Your task to perform on an android device: see sites visited before in the chrome app Image 0: 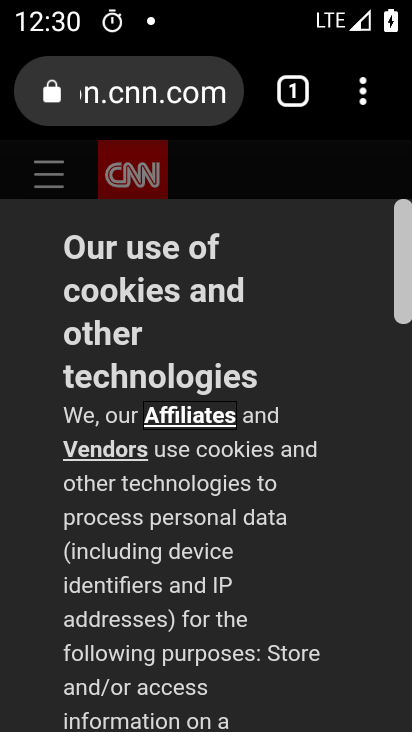
Step 0: click (368, 91)
Your task to perform on an android device: see sites visited before in the chrome app Image 1: 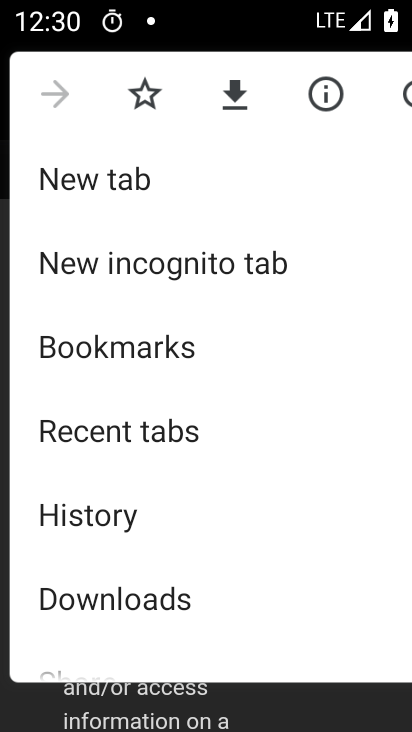
Step 1: click (113, 517)
Your task to perform on an android device: see sites visited before in the chrome app Image 2: 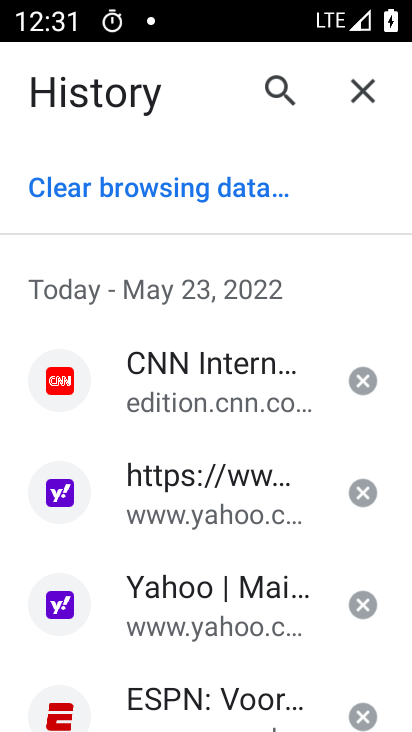
Step 2: task complete